Your task to perform on an android device: add a label to a message in the gmail app Image 0: 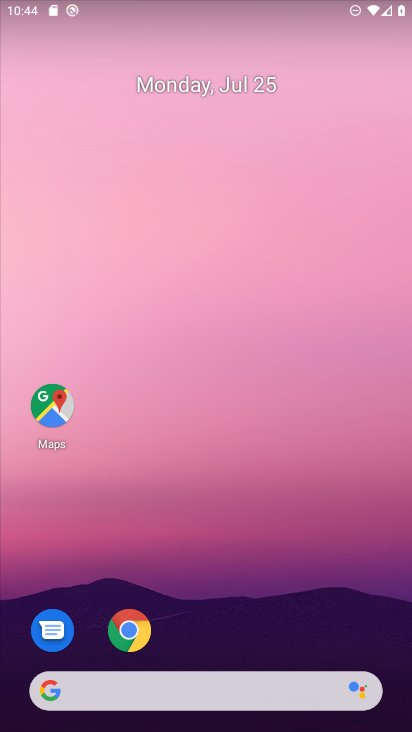
Step 0: drag from (279, 584) to (248, 41)
Your task to perform on an android device: add a label to a message in the gmail app Image 1: 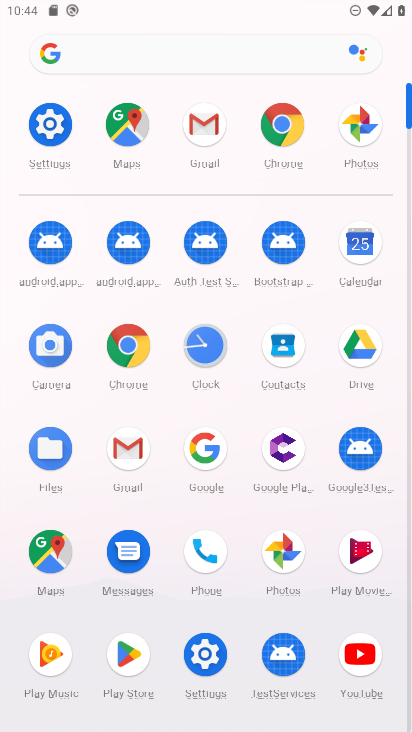
Step 1: click (204, 129)
Your task to perform on an android device: add a label to a message in the gmail app Image 2: 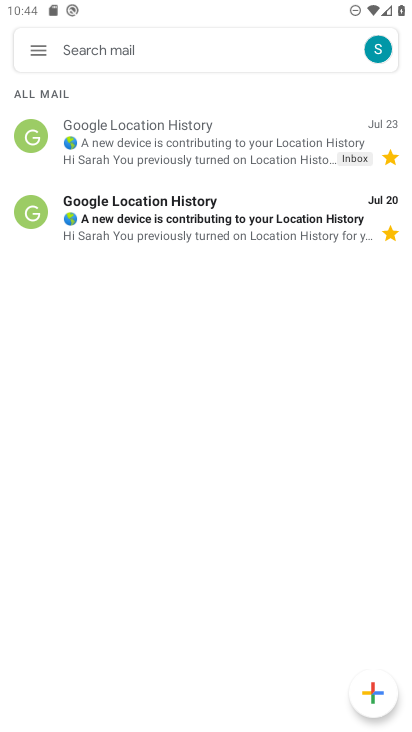
Step 2: click (224, 229)
Your task to perform on an android device: add a label to a message in the gmail app Image 3: 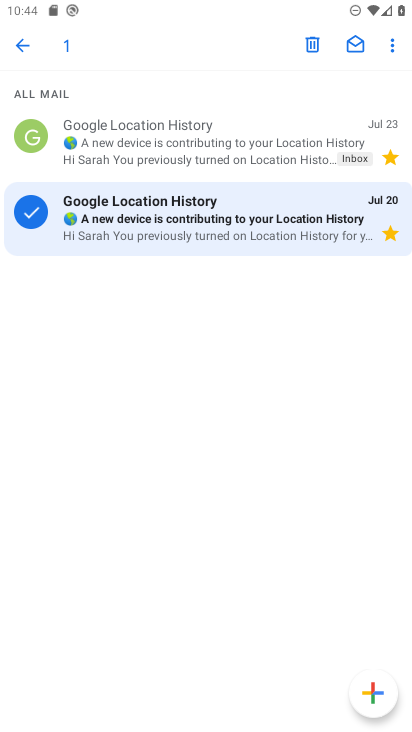
Step 3: click (396, 40)
Your task to perform on an android device: add a label to a message in the gmail app Image 4: 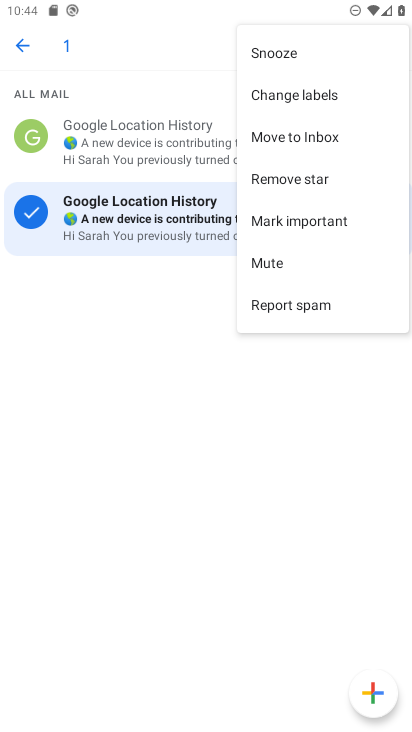
Step 4: task complete